Your task to perform on an android device: Clear the shopping cart on costco.com. Search for "macbook pro 15 inch" on costco.com, select the first entry, and add it to the cart. Image 0: 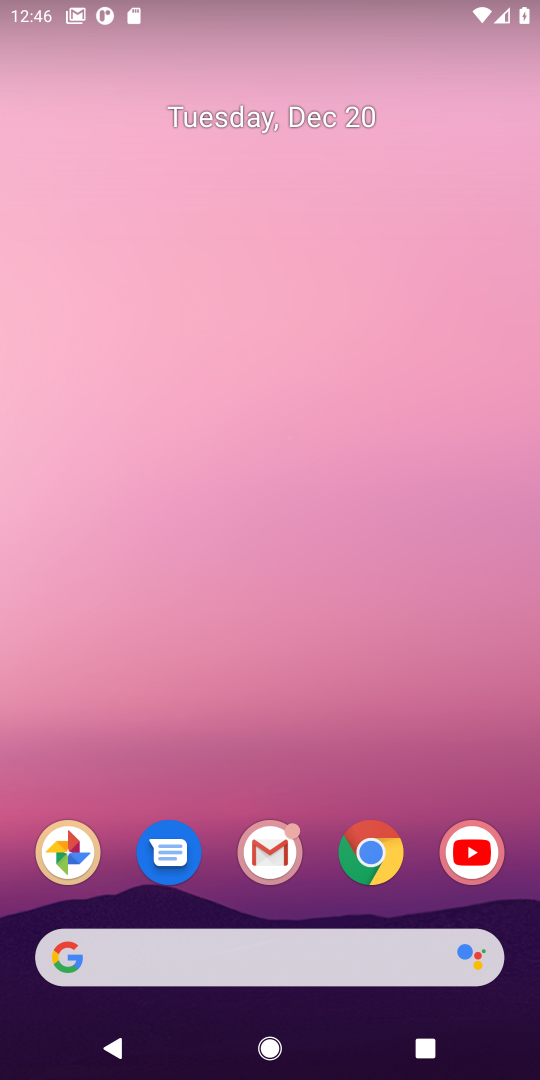
Step 0: click (367, 858)
Your task to perform on an android device: Clear the shopping cart on costco.com. Search for "macbook pro 15 inch" on costco.com, select the first entry, and add it to the cart. Image 1: 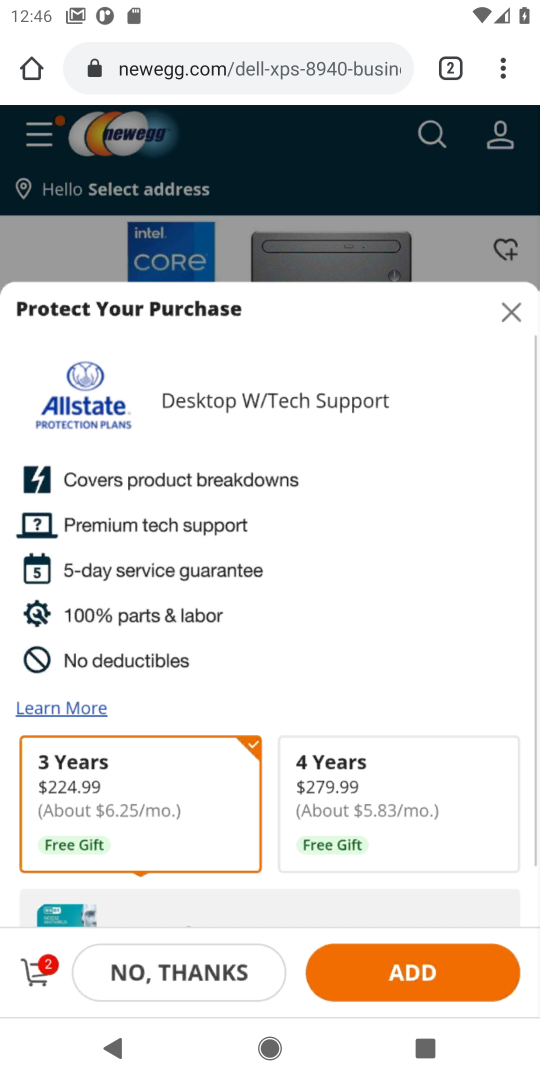
Step 1: click (210, 70)
Your task to perform on an android device: Clear the shopping cart on costco.com. Search for "macbook pro 15 inch" on costco.com, select the first entry, and add it to the cart. Image 2: 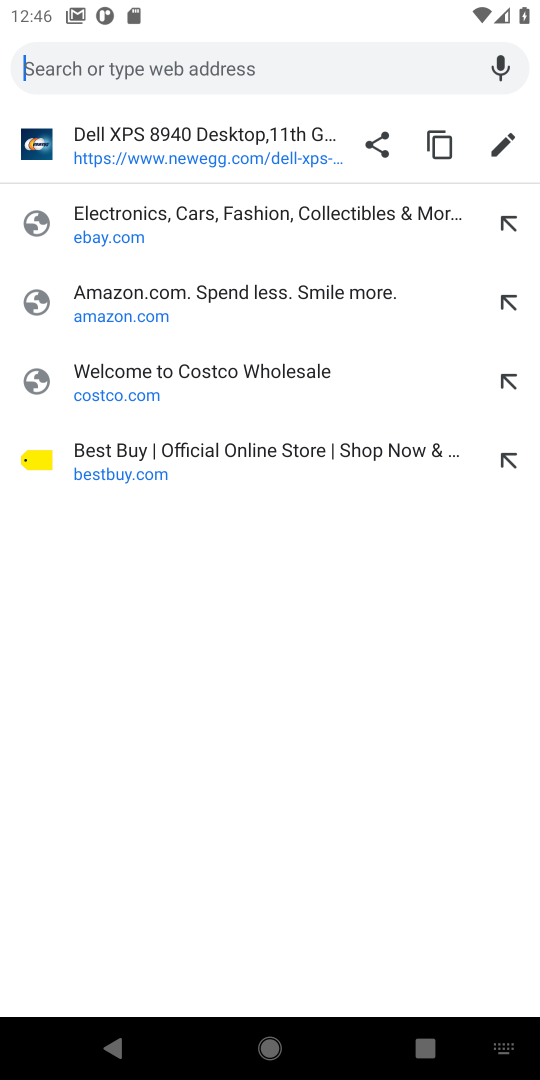
Step 2: click (121, 382)
Your task to perform on an android device: Clear the shopping cart on costco.com. Search for "macbook pro 15 inch" on costco.com, select the first entry, and add it to the cart. Image 3: 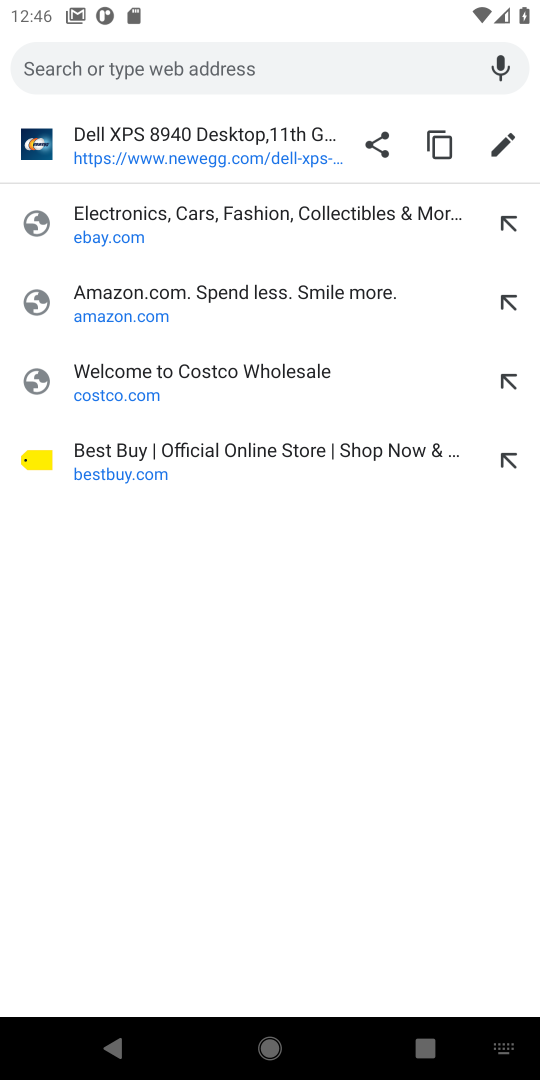
Step 3: click (94, 378)
Your task to perform on an android device: Clear the shopping cart on costco.com. Search for "macbook pro 15 inch" on costco.com, select the first entry, and add it to the cart. Image 4: 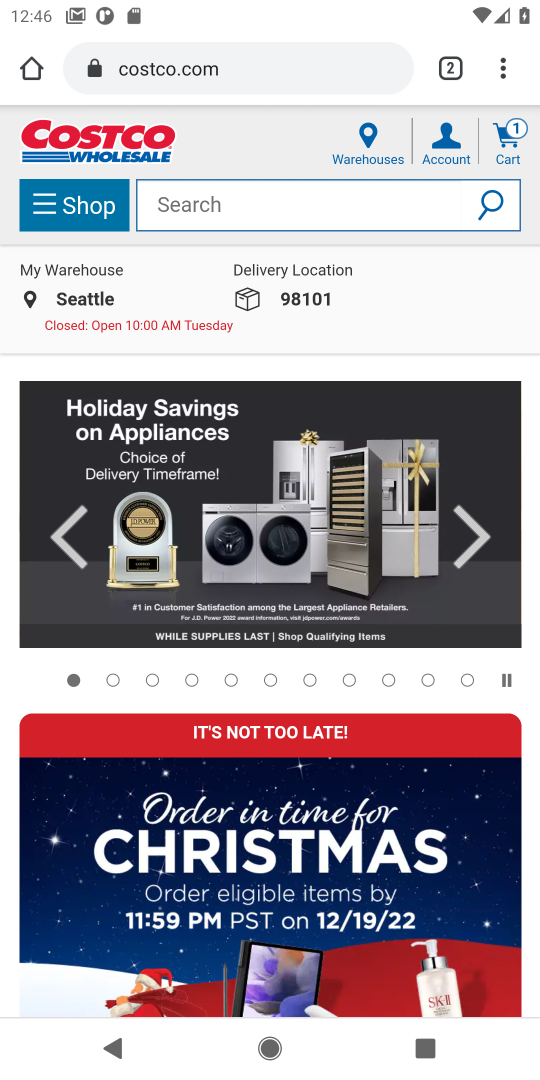
Step 4: click (502, 142)
Your task to perform on an android device: Clear the shopping cart on costco.com. Search for "macbook pro 15 inch" on costco.com, select the first entry, and add it to the cart. Image 5: 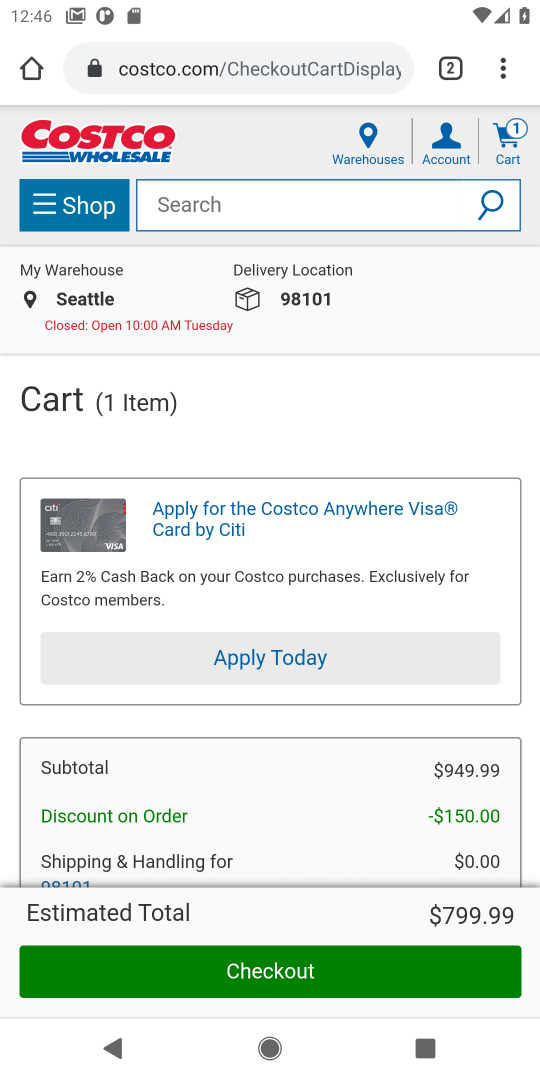
Step 5: drag from (262, 728) to (273, 456)
Your task to perform on an android device: Clear the shopping cart on costco.com. Search for "macbook pro 15 inch" on costco.com, select the first entry, and add it to the cart. Image 6: 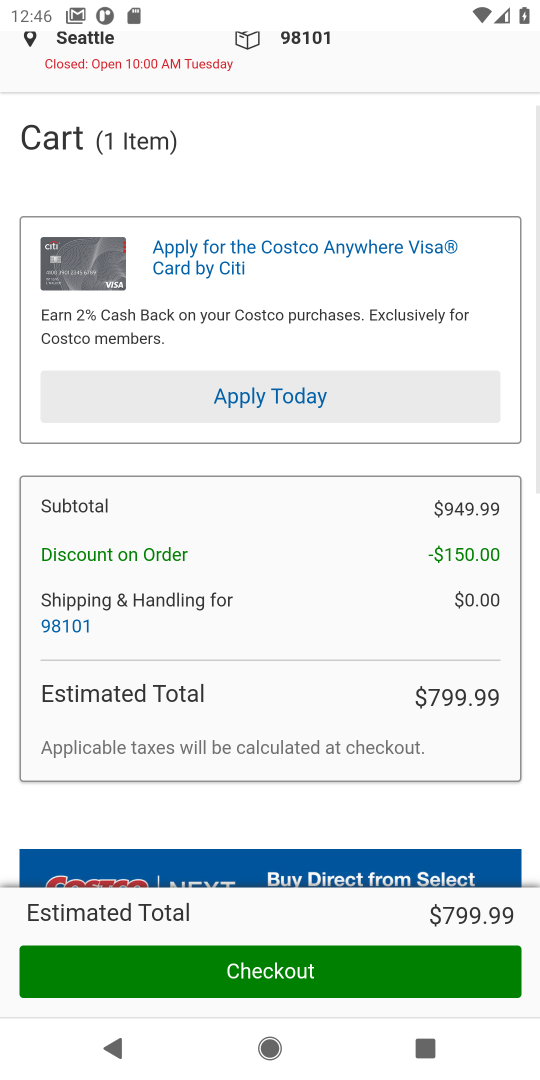
Step 6: drag from (274, 714) to (313, 384)
Your task to perform on an android device: Clear the shopping cart on costco.com. Search for "macbook pro 15 inch" on costco.com, select the first entry, and add it to the cart. Image 7: 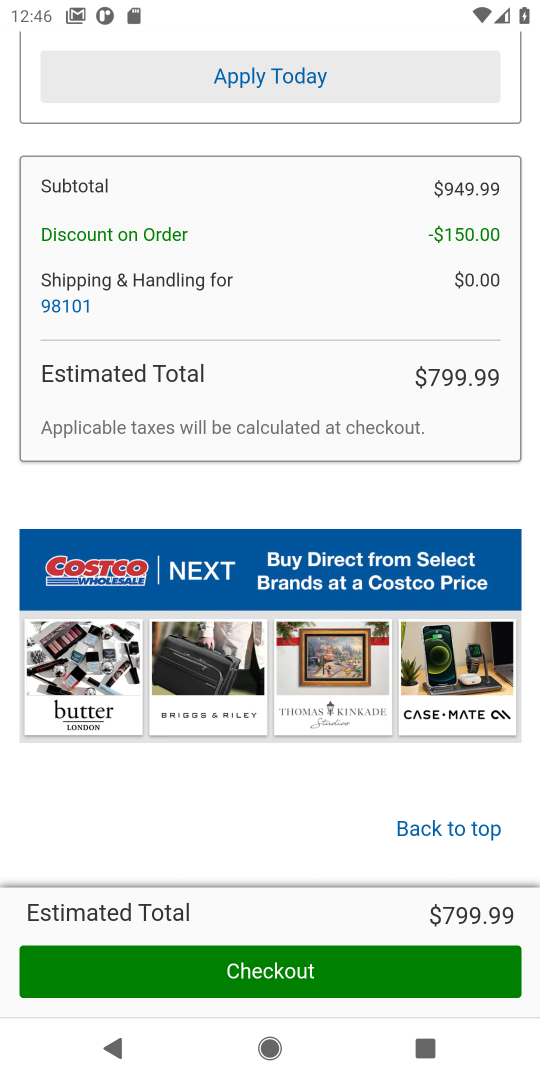
Step 7: drag from (322, 739) to (311, 543)
Your task to perform on an android device: Clear the shopping cart on costco.com. Search for "macbook pro 15 inch" on costco.com, select the first entry, and add it to the cart. Image 8: 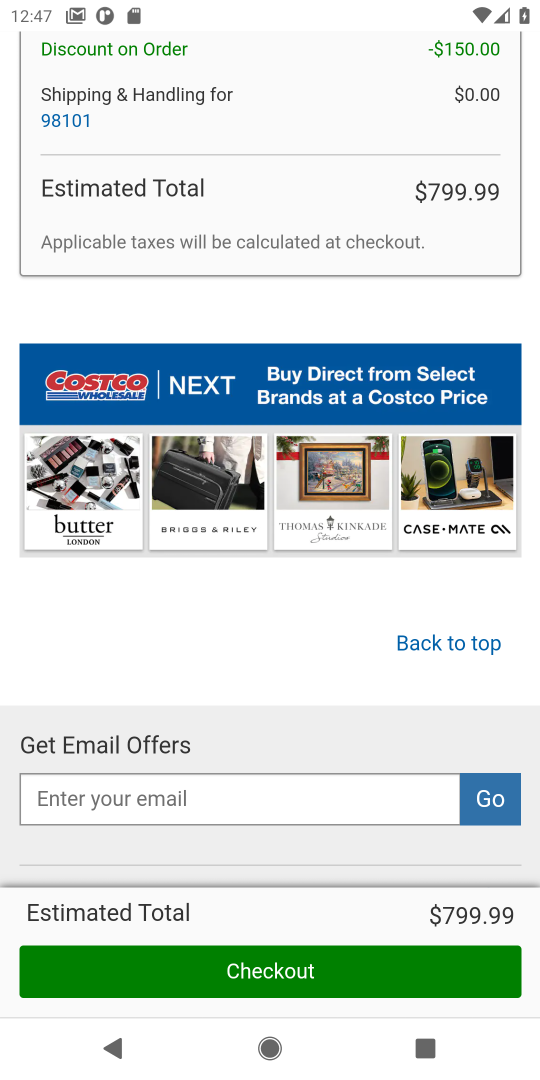
Step 8: click (462, 650)
Your task to perform on an android device: Clear the shopping cart on costco.com. Search for "macbook pro 15 inch" on costco.com, select the first entry, and add it to the cart. Image 9: 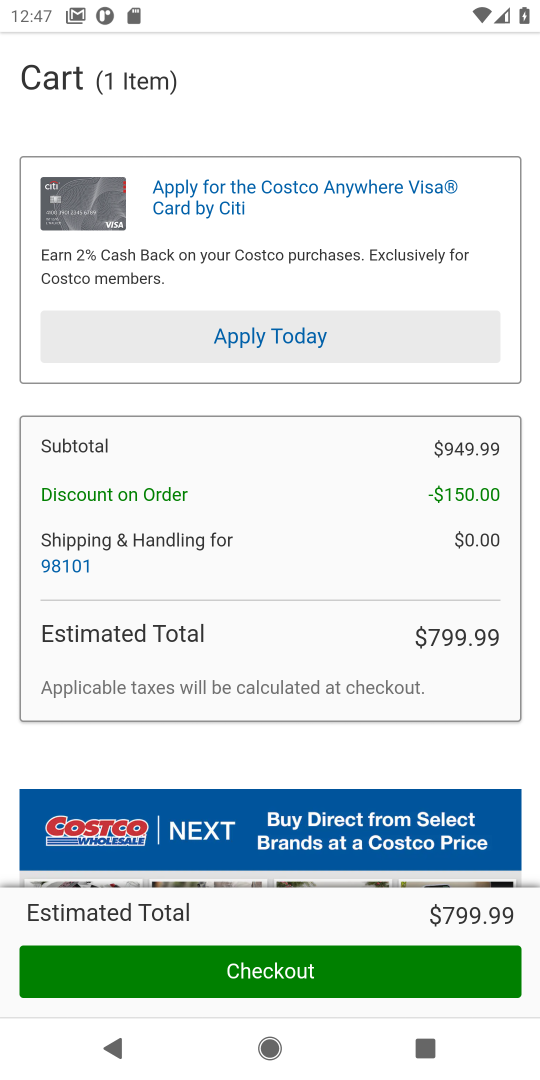
Step 9: click (198, 645)
Your task to perform on an android device: Clear the shopping cart on costco.com. Search for "macbook pro 15 inch" on costco.com, select the first entry, and add it to the cart. Image 10: 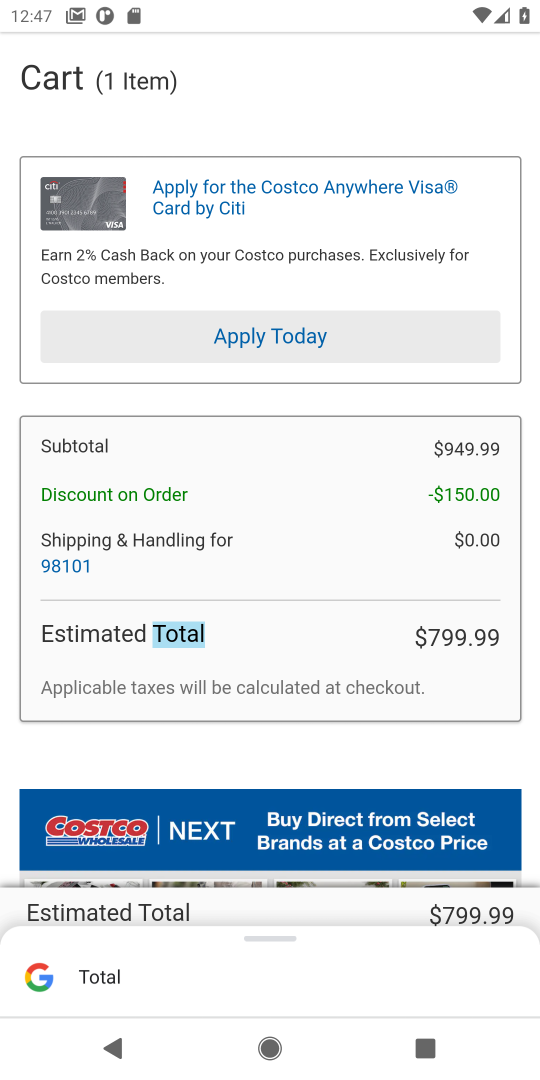
Step 10: click (225, 696)
Your task to perform on an android device: Clear the shopping cart on costco.com. Search for "macbook pro 15 inch" on costco.com, select the first entry, and add it to the cart. Image 11: 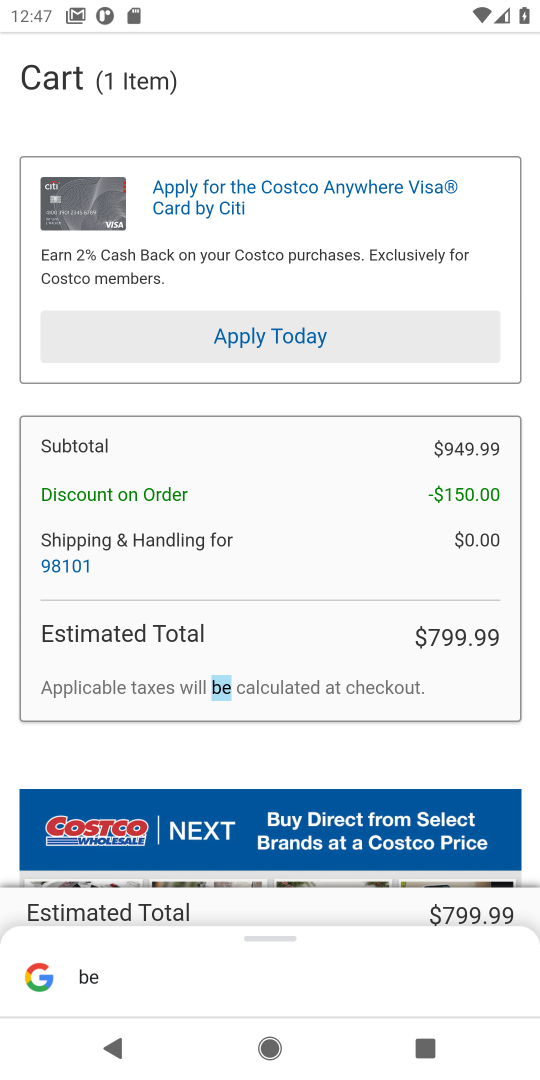
Step 11: click (127, 548)
Your task to perform on an android device: Clear the shopping cart on costco.com. Search for "macbook pro 15 inch" on costco.com, select the first entry, and add it to the cart. Image 12: 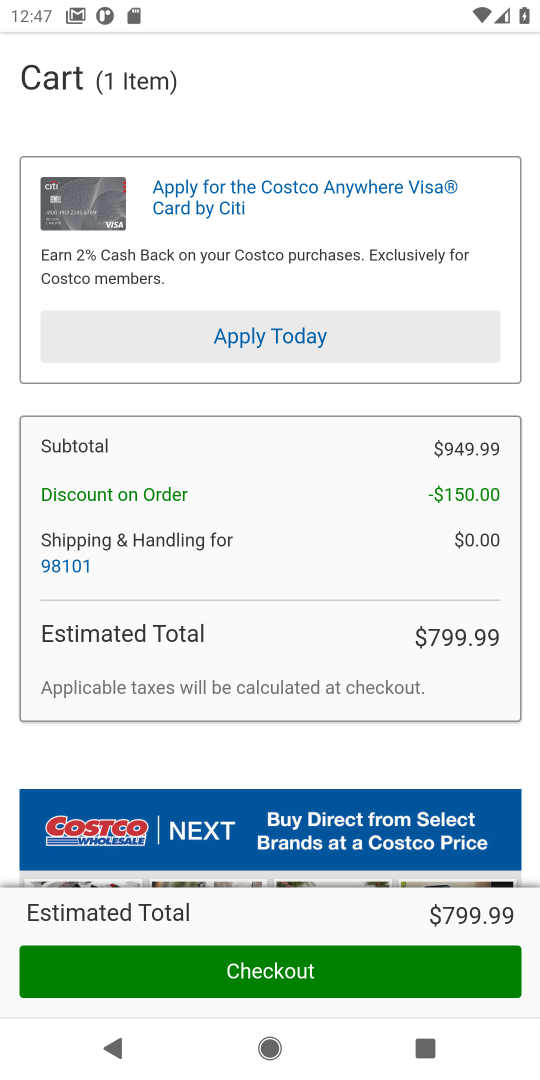
Step 12: drag from (127, 548) to (134, 691)
Your task to perform on an android device: Clear the shopping cart on costco.com. Search for "macbook pro 15 inch" on costco.com, select the first entry, and add it to the cart. Image 13: 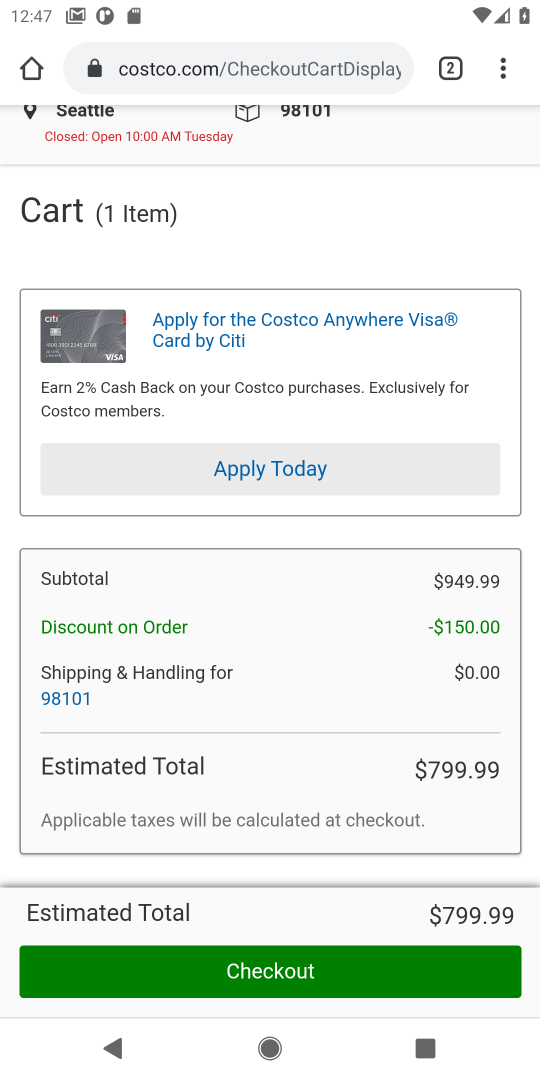
Step 13: drag from (236, 520) to (225, 749)
Your task to perform on an android device: Clear the shopping cart on costco.com. Search for "macbook pro 15 inch" on costco.com, select the first entry, and add it to the cart. Image 14: 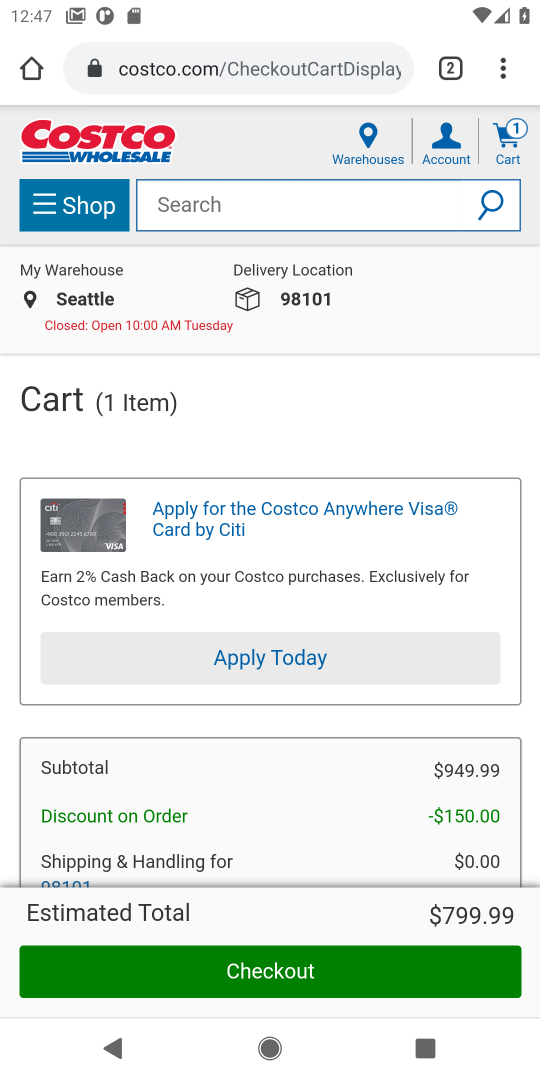
Step 14: click (500, 149)
Your task to perform on an android device: Clear the shopping cart on costco.com. Search for "macbook pro 15 inch" on costco.com, select the first entry, and add it to the cart. Image 15: 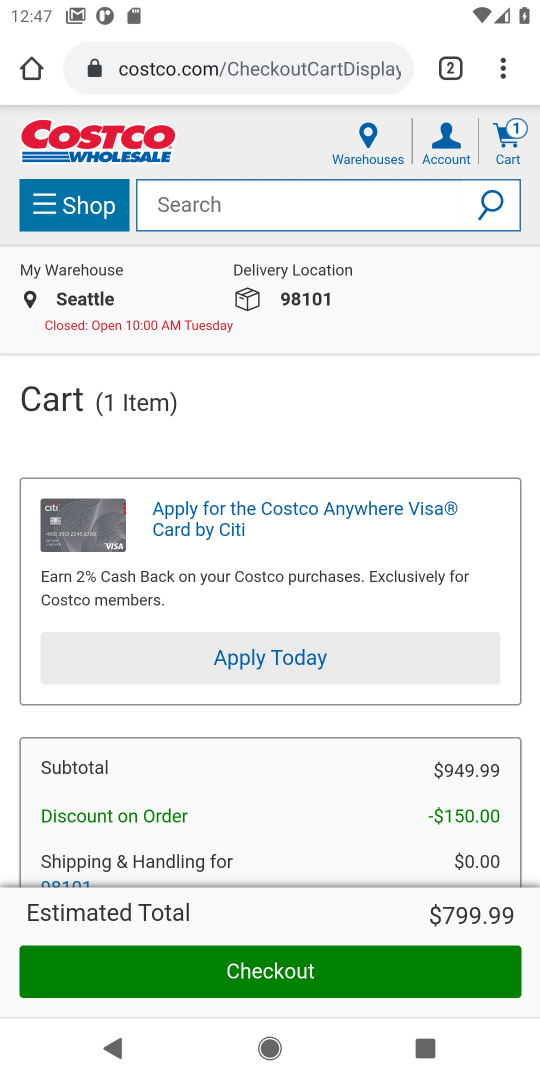
Step 15: drag from (276, 569) to (287, 421)
Your task to perform on an android device: Clear the shopping cart on costco.com. Search for "macbook pro 15 inch" on costco.com, select the first entry, and add it to the cart. Image 16: 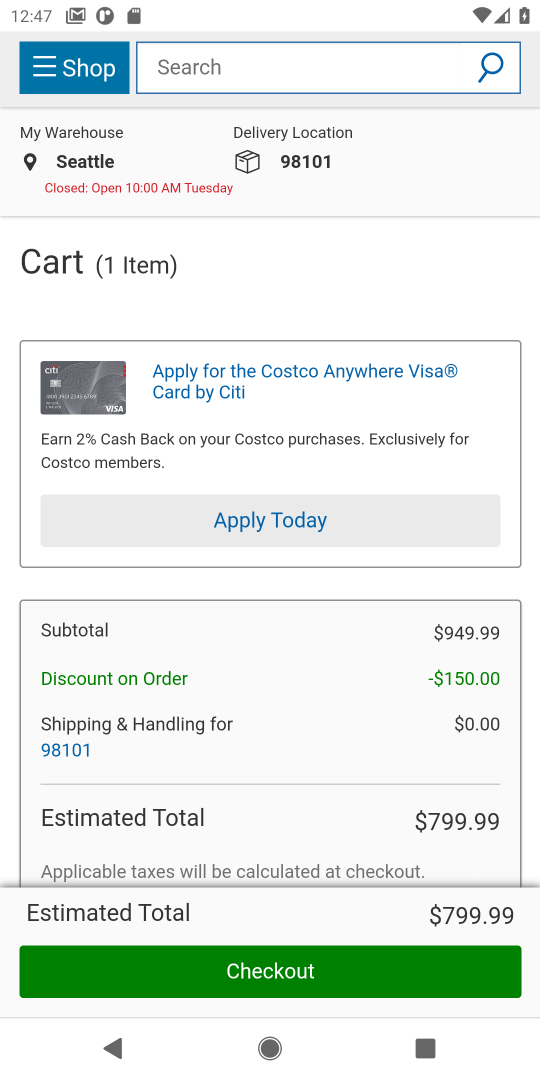
Step 16: drag from (262, 525) to (272, 439)
Your task to perform on an android device: Clear the shopping cart on costco.com. Search for "macbook pro 15 inch" on costco.com, select the first entry, and add it to the cart. Image 17: 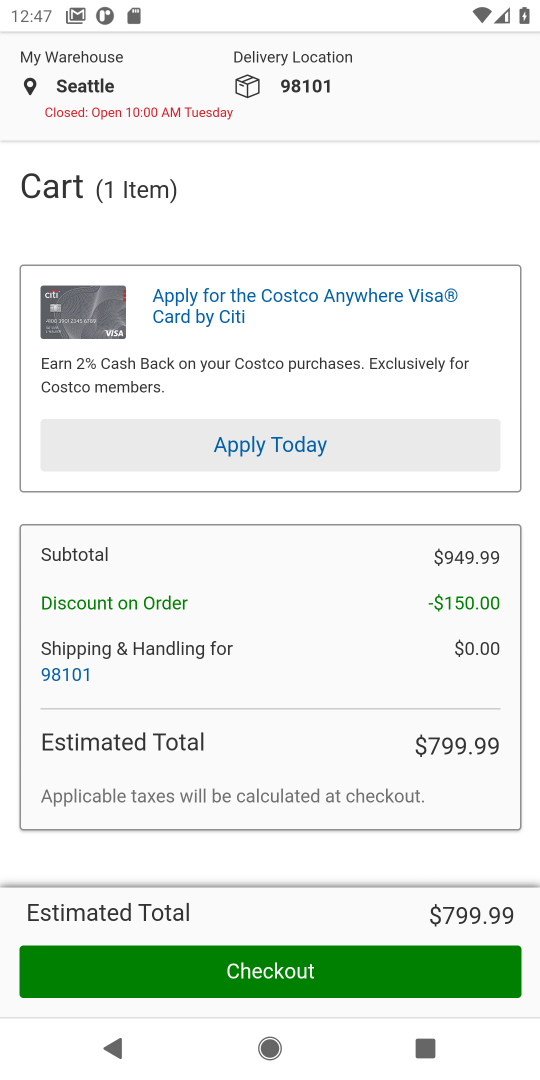
Step 17: click (128, 184)
Your task to perform on an android device: Clear the shopping cart on costco.com. Search for "macbook pro 15 inch" on costco.com, select the first entry, and add it to the cart. Image 18: 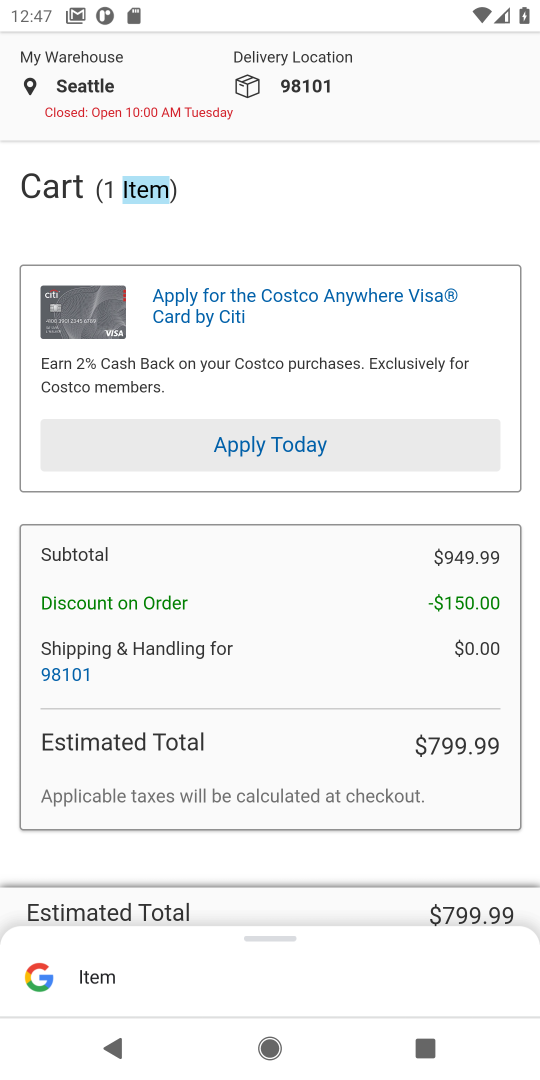
Step 18: click (128, 184)
Your task to perform on an android device: Clear the shopping cart on costco.com. Search for "macbook pro 15 inch" on costco.com, select the first entry, and add it to the cart. Image 19: 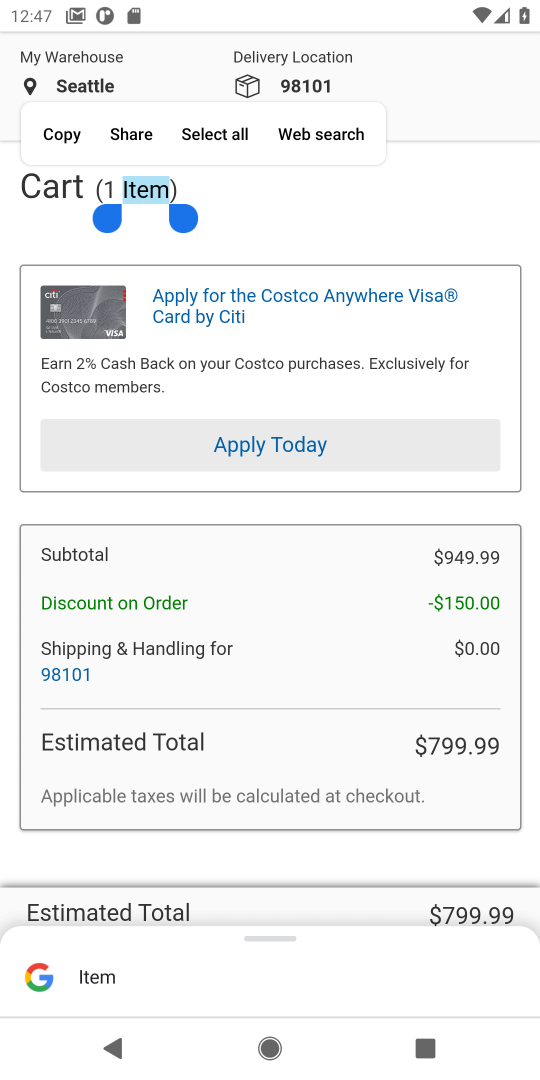
Step 19: click (101, 186)
Your task to perform on an android device: Clear the shopping cart on costco.com. Search for "macbook pro 15 inch" on costco.com, select the first entry, and add it to the cart. Image 20: 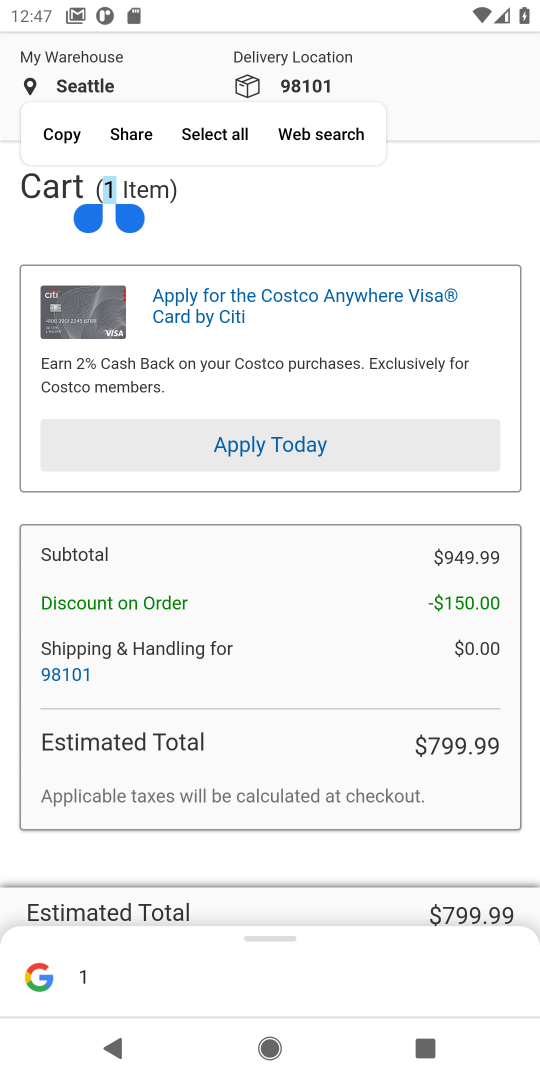
Step 20: drag from (298, 527) to (308, 385)
Your task to perform on an android device: Clear the shopping cart on costco.com. Search for "macbook pro 15 inch" on costco.com, select the first entry, and add it to the cart. Image 21: 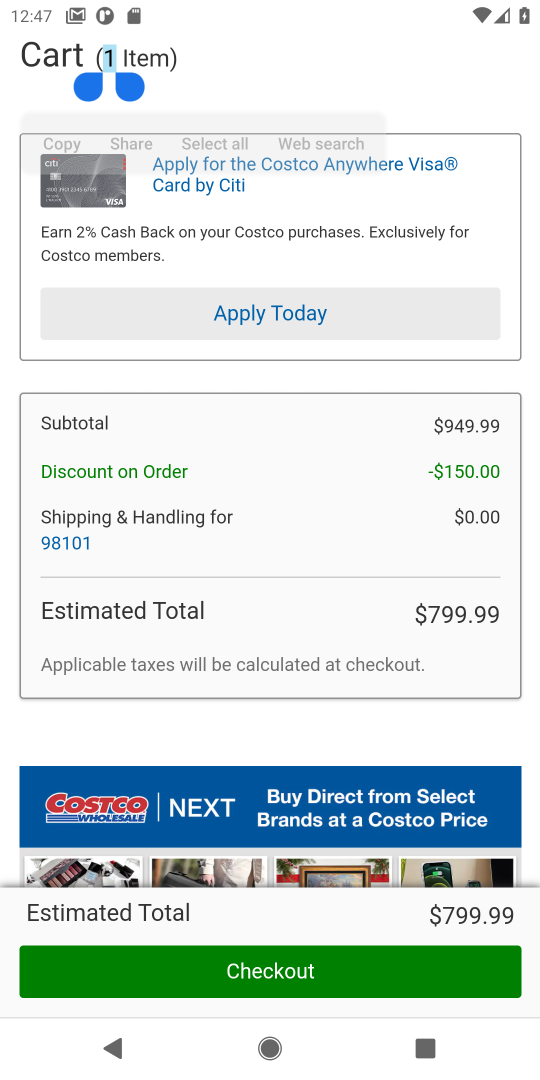
Step 21: drag from (291, 614) to (297, 401)
Your task to perform on an android device: Clear the shopping cart on costco.com. Search for "macbook pro 15 inch" on costco.com, select the first entry, and add it to the cart. Image 22: 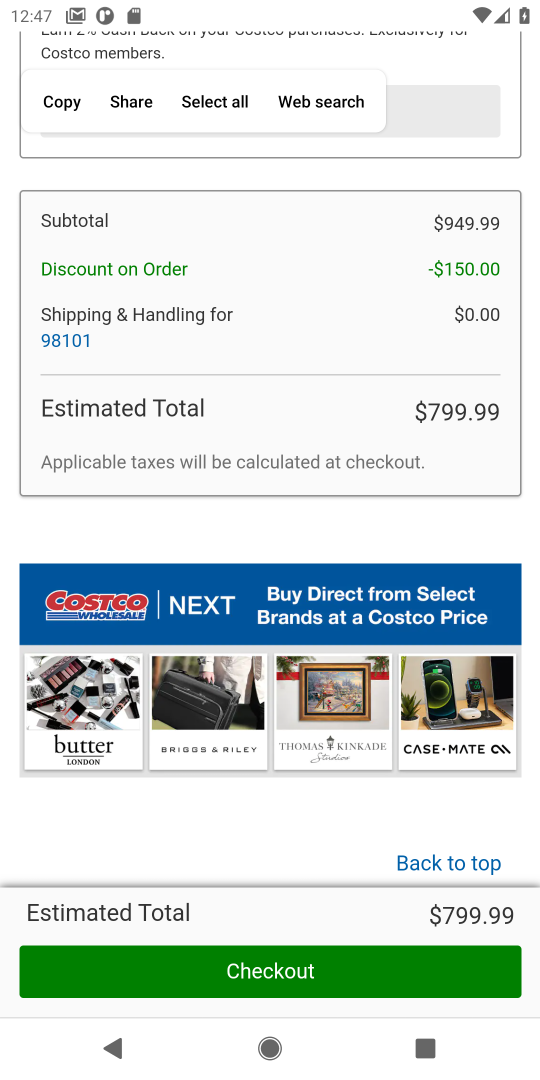
Step 22: drag from (353, 571) to (359, 412)
Your task to perform on an android device: Clear the shopping cart on costco.com. Search for "macbook pro 15 inch" on costco.com, select the first entry, and add it to the cart. Image 23: 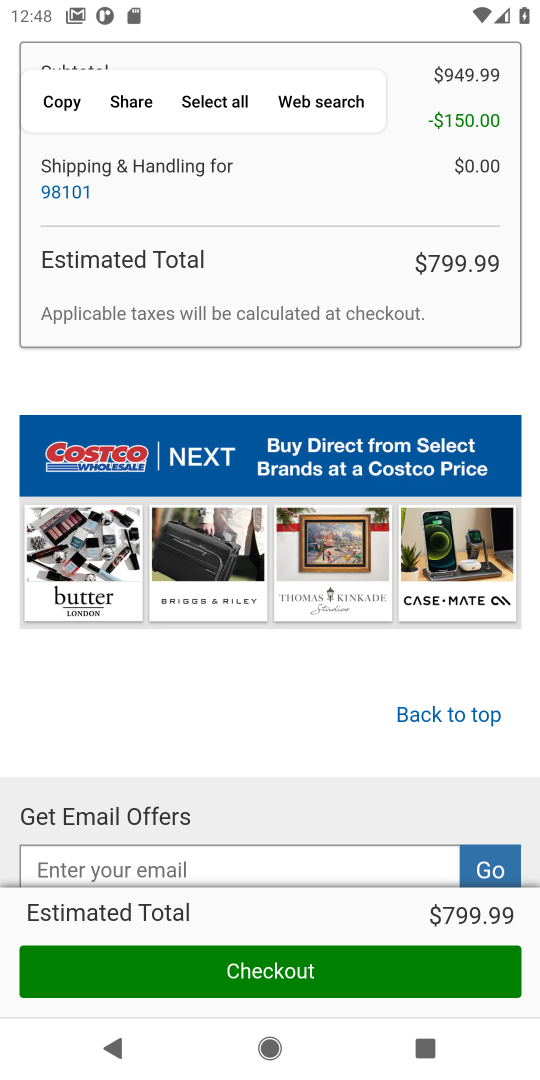
Step 23: drag from (430, 737) to (350, 356)
Your task to perform on an android device: Clear the shopping cart on costco.com. Search for "macbook pro 15 inch" on costco.com, select the first entry, and add it to the cart. Image 24: 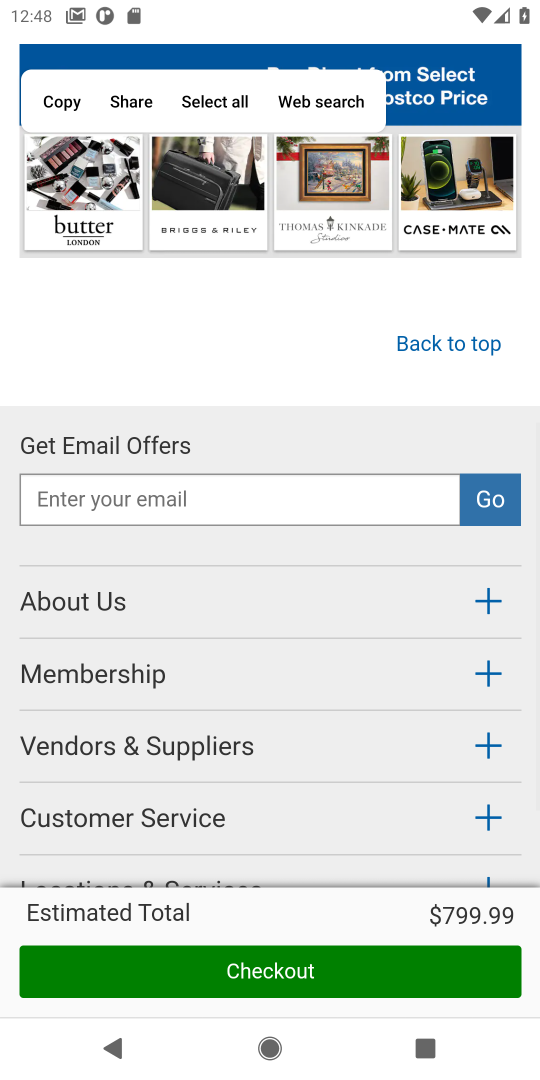
Step 24: drag from (265, 657) to (274, 319)
Your task to perform on an android device: Clear the shopping cart on costco.com. Search for "macbook pro 15 inch" on costco.com, select the first entry, and add it to the cart. Image 25: 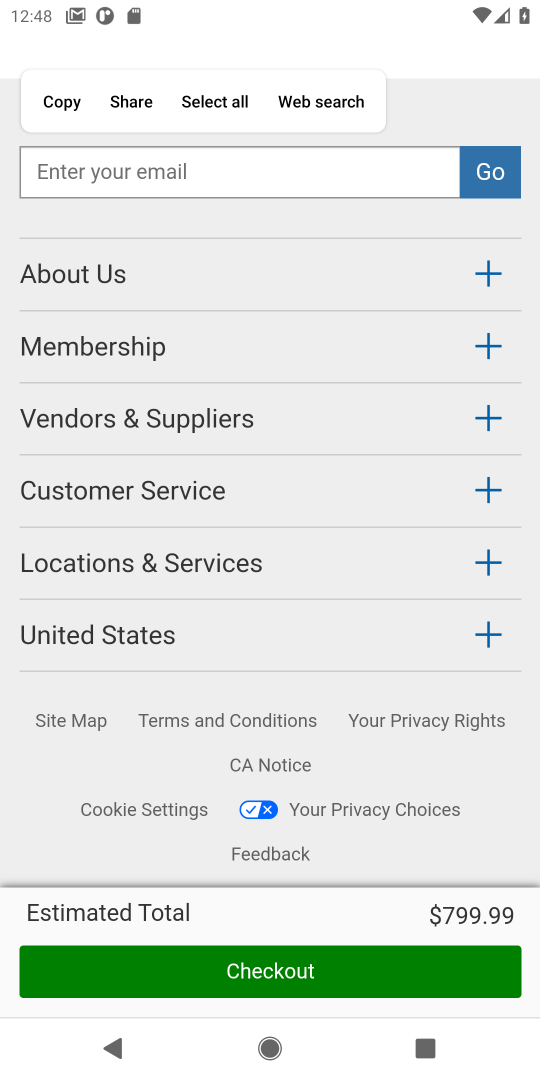
Step 25: drag from (265, 711) to (287, 307)
Your task to perform on an android device: Clear the shopping cart on costco.com. Search for "macbook pro 15 inch" on costco.com, select the first entry, and add it to the cart. Image 26: 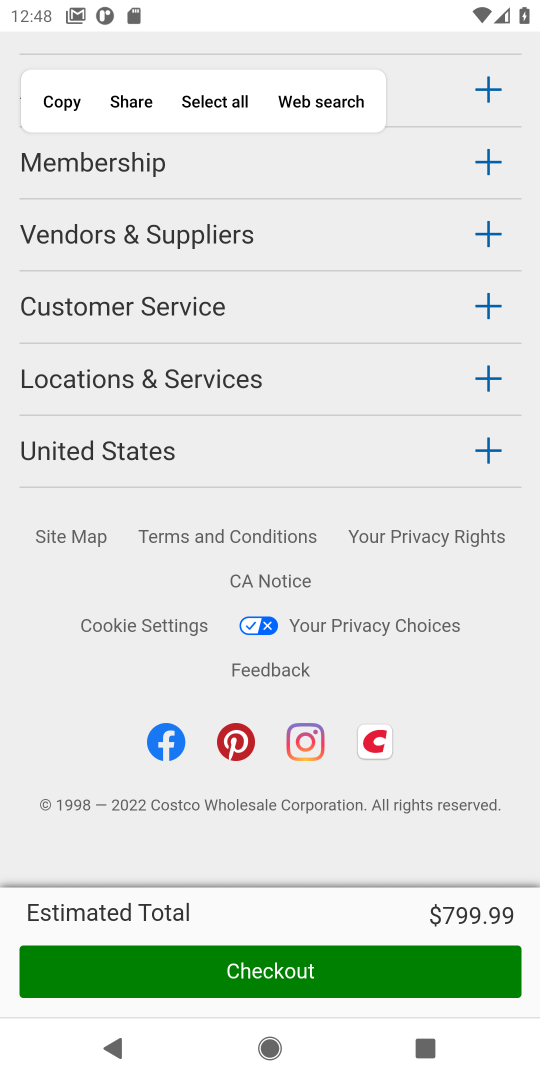
Step 26: drag from (278, 671) to (297, 313)
Your task to perform on an android device: Clear the shopping cart on costco.com. Search for "macbook pro 15 inch" on costco.com, select the first entry, and add it to the cart. Image 27: 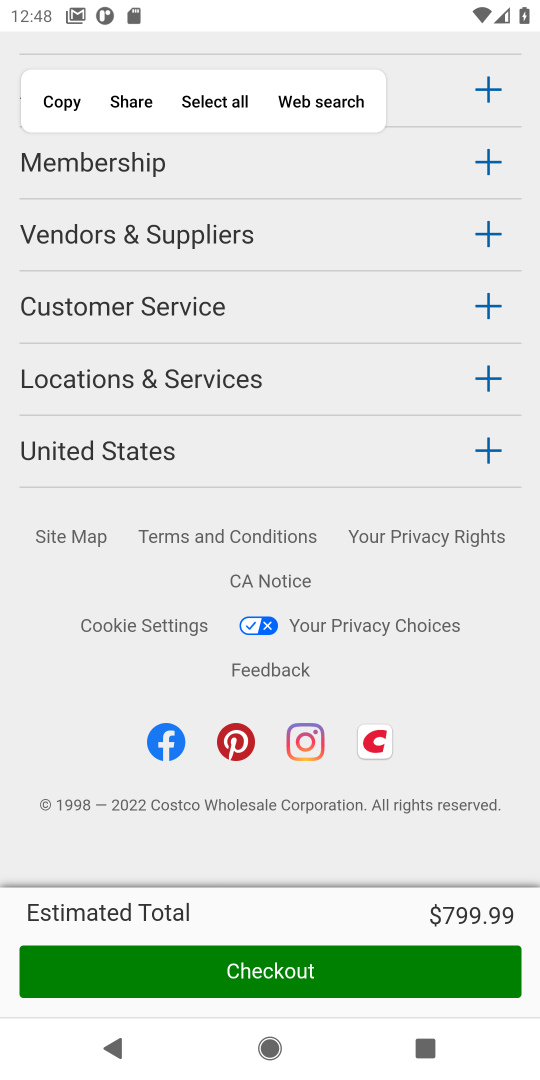
Step 27: click (443, 920)
Your task to perform on an android device: Clear the shopping cart on costco.com. Search for "macbook pro 15 inch" on costco.com, select the first entry, and add it to the cart. Image 28: 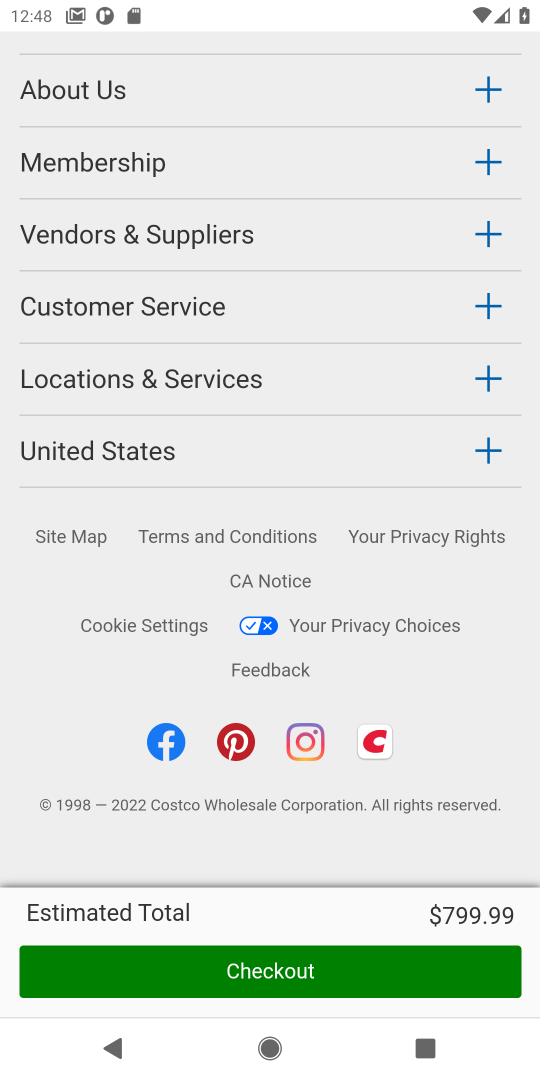
Step 28: task complete